Your task to perform on an android device: turn on bluetooth scan Image 0: 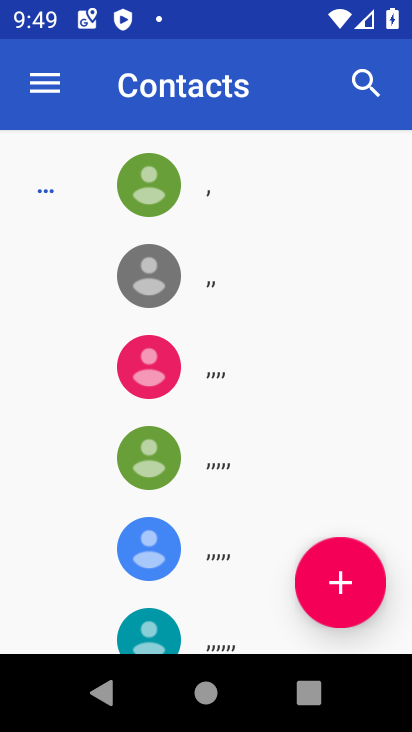
Step 0: press home button
Your task to perform on an android device: turn on bluetooth scan Image 1: 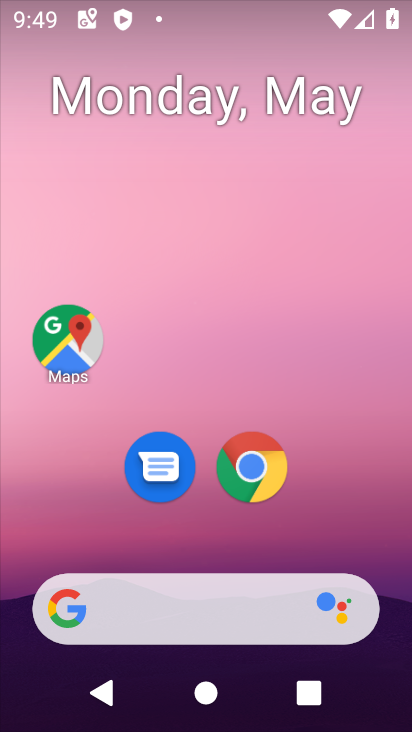
Step 1: drag from (400, 605) to (308, 94)
Your task to perform on an android device: turn on bluetooth scan Image 2: 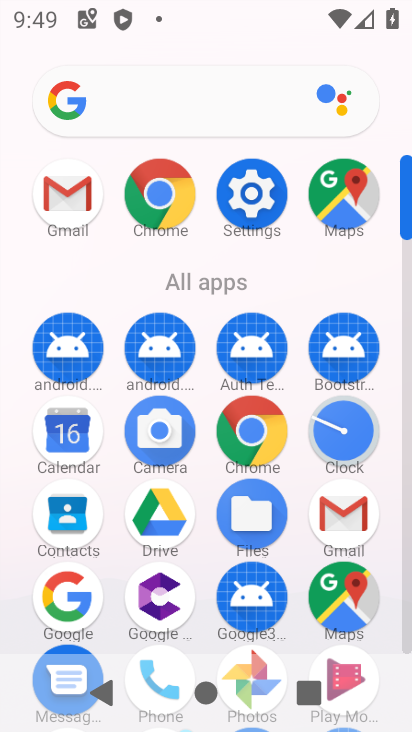
Step 2: click (411, 632)
Your task to perform on an android device: turn on bluetooth scan Image 3: 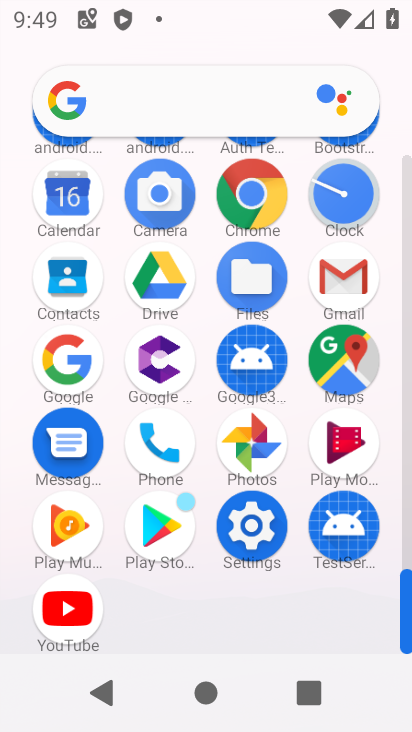
Step 3: click (251, 521)
Your task to perform on an android device: turn on bluetooth scan Image 4: 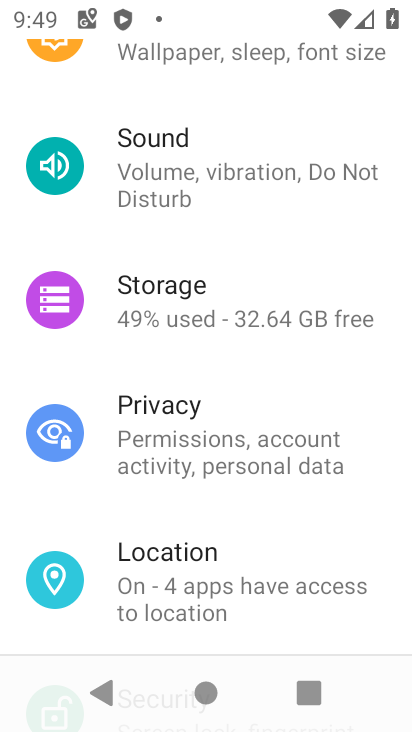
Step 4: click (224, 581)
Your task to perform on an android device: turn on bluetooth scan Image 5: 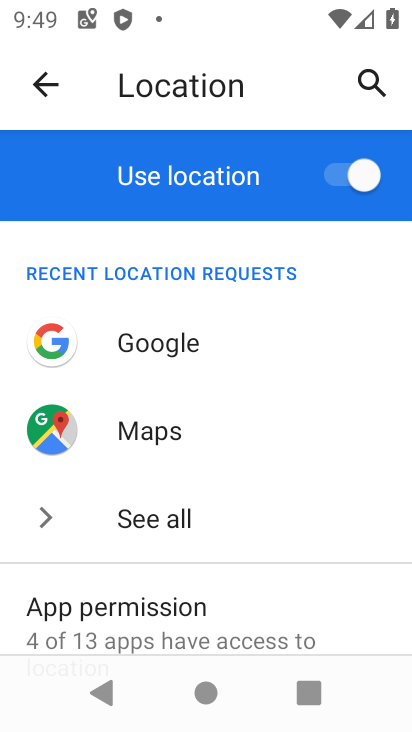
Step 5: drag from (239, 601) to (247, 190)
Your task to perform on an android device: turn on bluetooth scan Image 6: 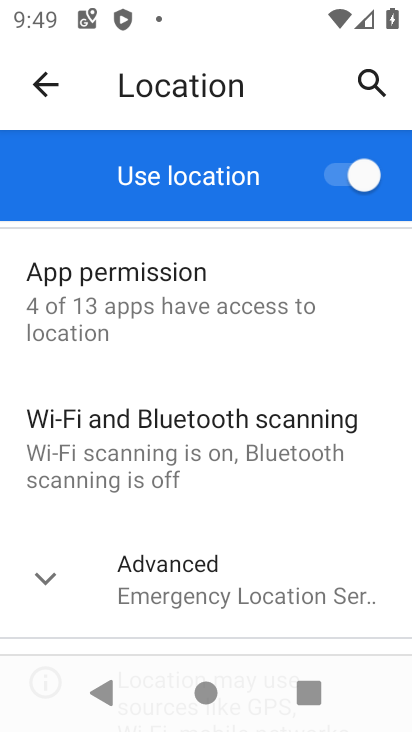
Step 6: click (136, 466)
Your task to perform on an android device: turn on bluetooth scan Image 7: 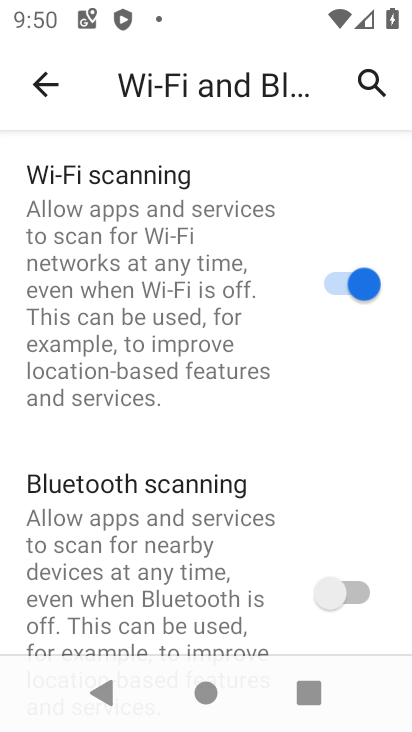
Step 7: click (365, 590)
Your task to perform on an android device: turn on bluetooth scan Image 8: 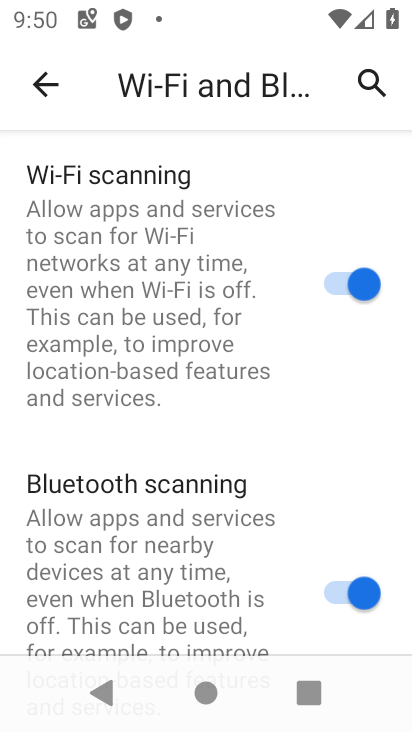
Step 8: task complete